Your task to perform on an android device: visit the assistant section in the google photos Image 0: 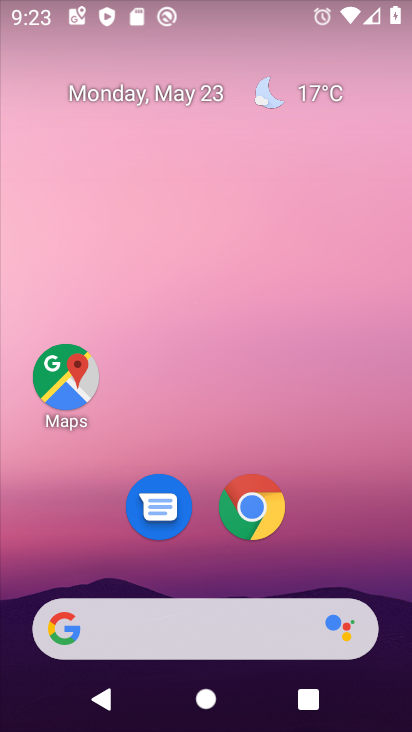
Step 0: drag from (365, 506) to (400, 36)
Your task to perform on an android device: visit the assistant section in the google photos Image 1: 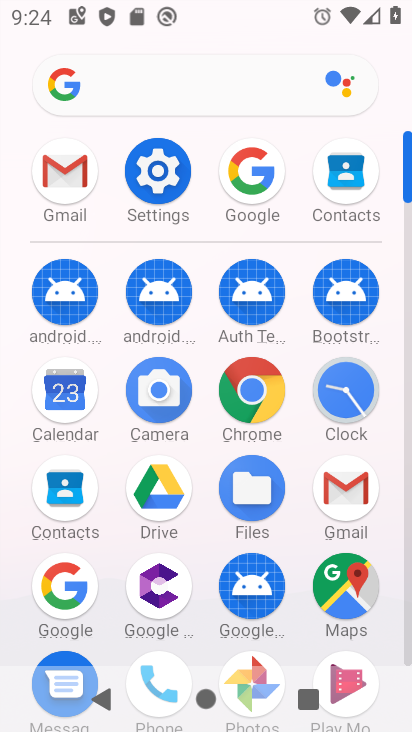
Step 1: click (409, 586)
Your task to perform on an android device: visit the assistant section in the google photos Image 2: 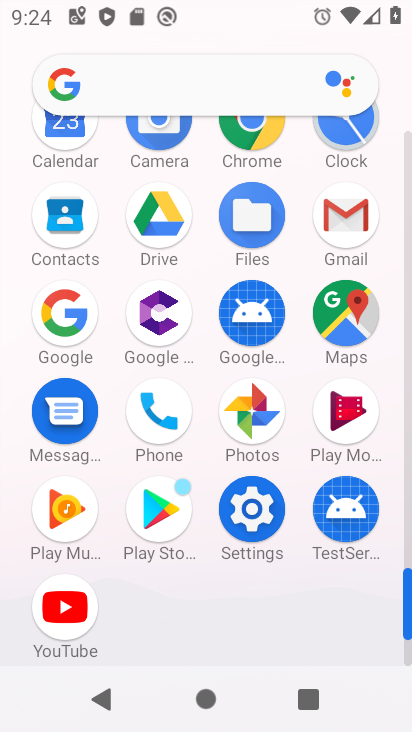
Step 2: click (253, 422)
Your task to perform on an android device: visit the assistant section in the google photos Image 3: 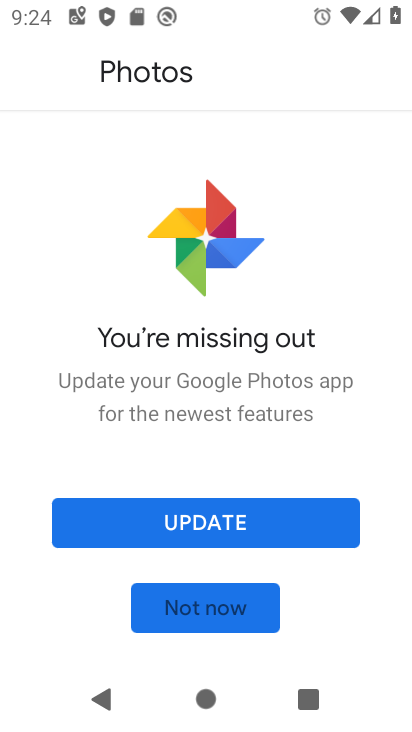
Step 3: click (225, 604)
Your task to perform on an android device: visit the assistant section in the google photos Image 4: 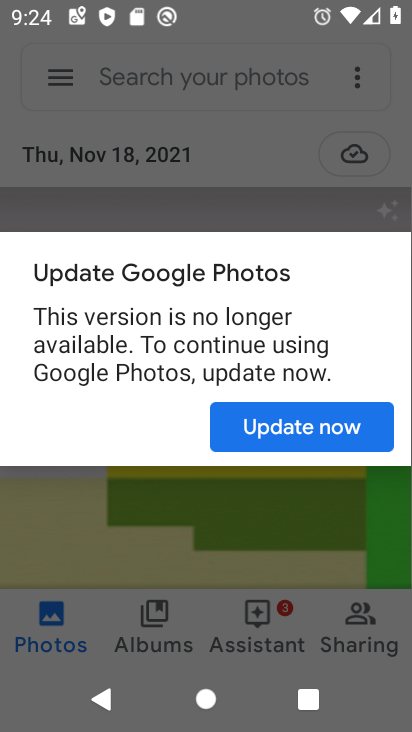
Step 4: click (318, 424)
Your task to perform on an android device: visit the assistant section in the google photos Image 5: 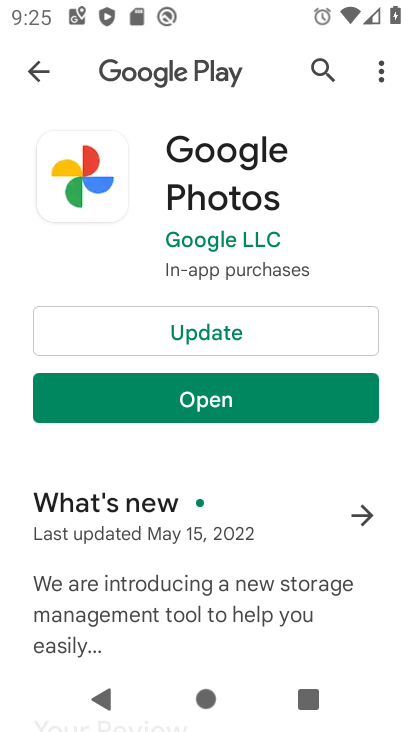
Step 5: click (194, 400)
Your task to perform on an android device: visit the assistant section in the google photos Image 6: 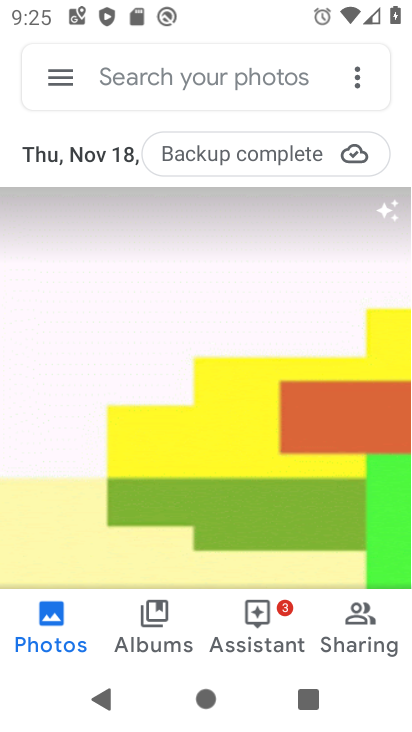
Step 6: click (264, 661)
Your task to perform on an android device: visit the assistant section in the google photos Image 7: 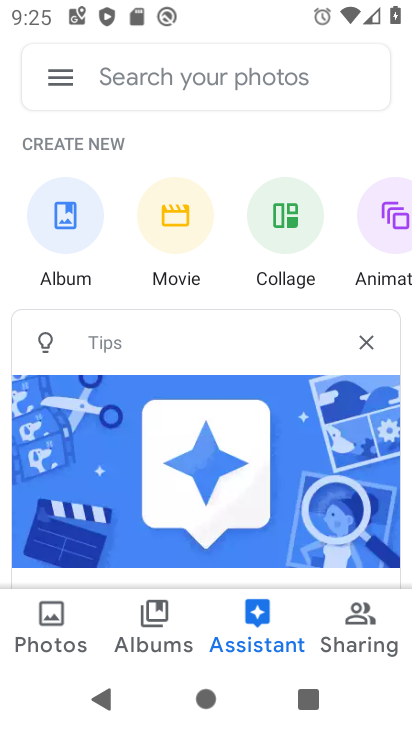
Step 7: task complete